Your task to perform on an android device: open app "Indeed Job Search" (install if not already installed), go to login, and select forgot password Image 0: 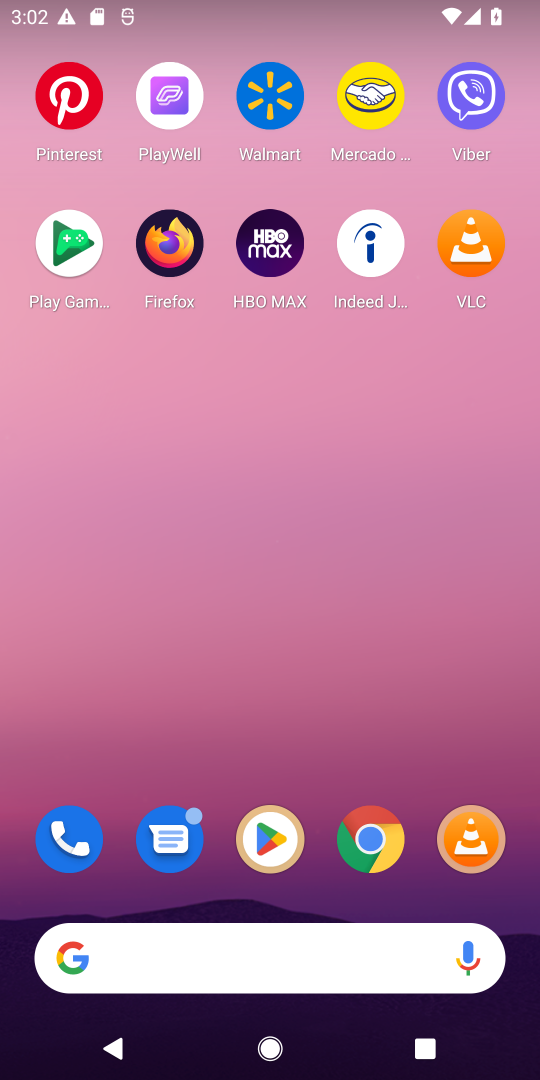
Step 0: click (285, 835)
Your task to perform on an android device: open app "Indeed Job Search" (install if not already installed), go to login, and select forgot password Image 1: 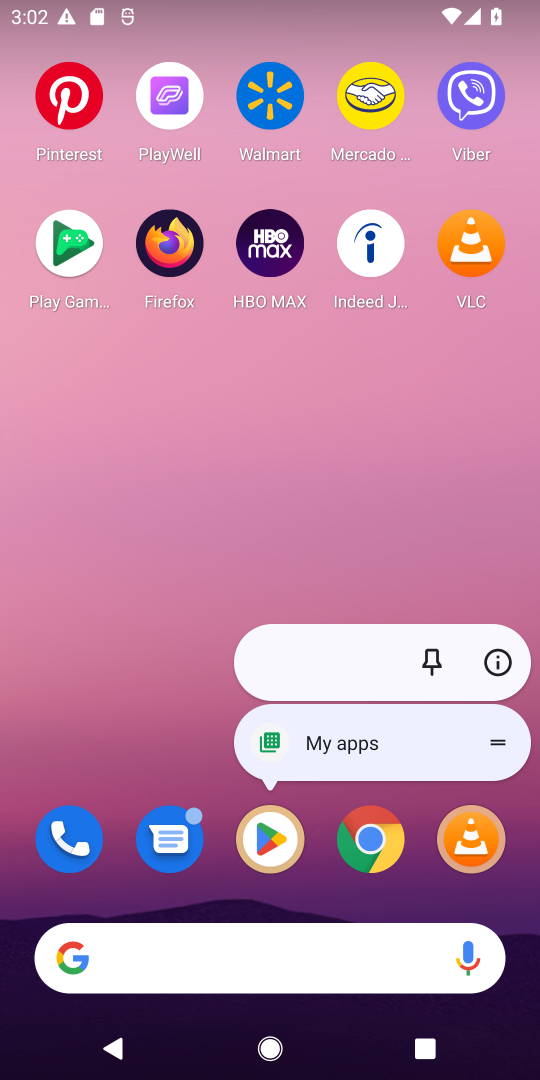
Step 1: click (281, 840)
Your task to perform on an android device: open app "Indeed Job Search" (install if not already installed), go to login, and select forgot password Image 2: 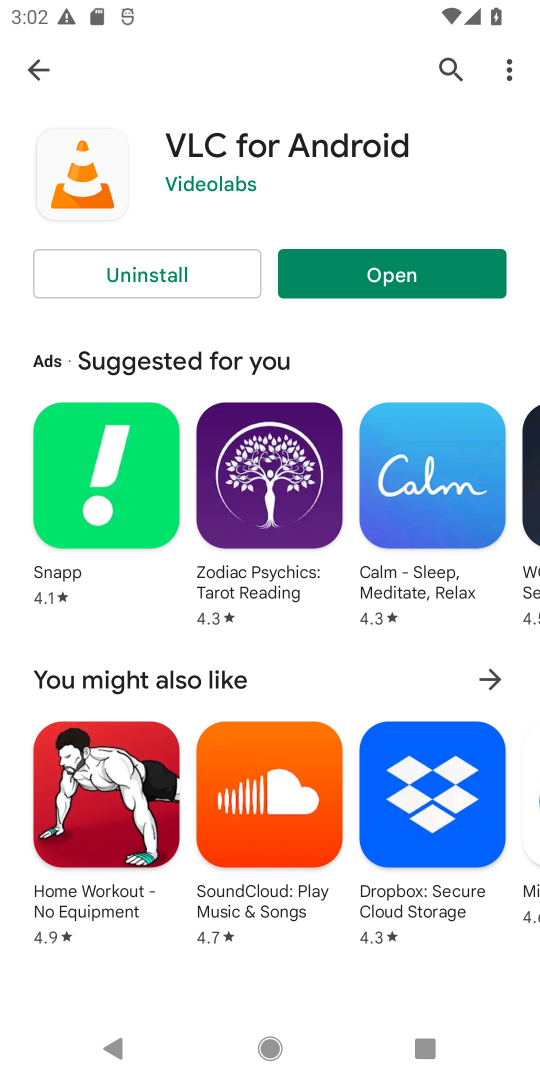
Step 2: click (37, 73)
Your task to perform on an android device: open app "Indeed Job Search" (install if not already installed), go to login, and select forgot password Image 3: 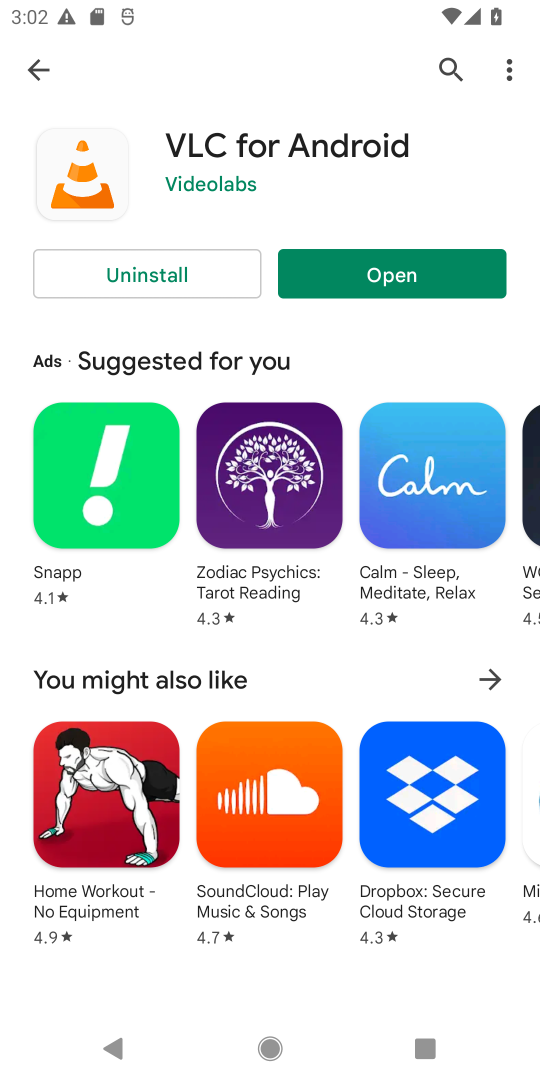
Step 3: click (36, 71)
Your task to perform on an android device: open app "Indeed Job Search" (install if not already installed), go to login, and select forgot password Image 4: 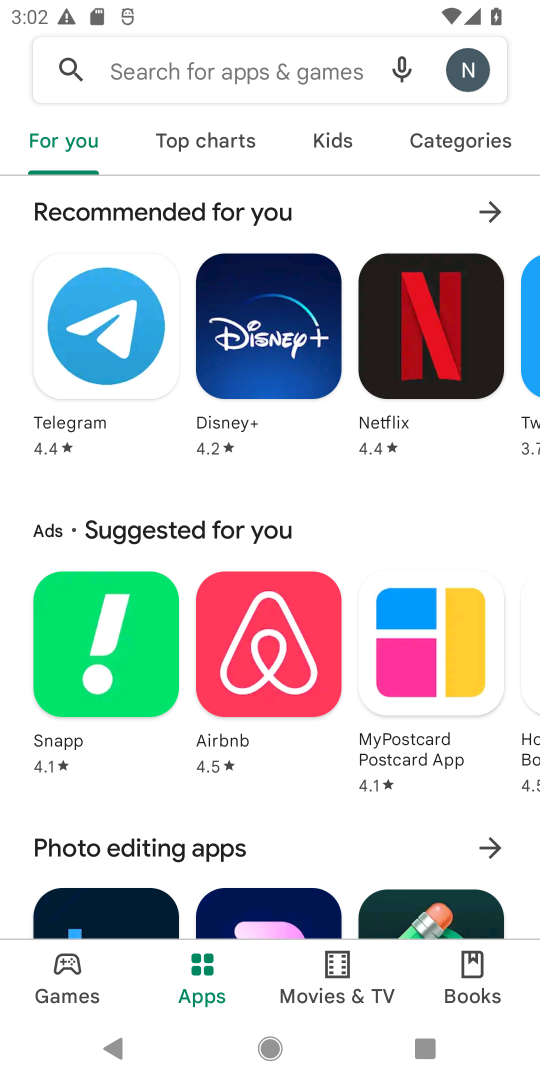
Step 4: click (216, 76)
Your task to perform on an android device: open app "Indeed Job Search" (install if not already installed), go to login, and select forgot password Image 5: 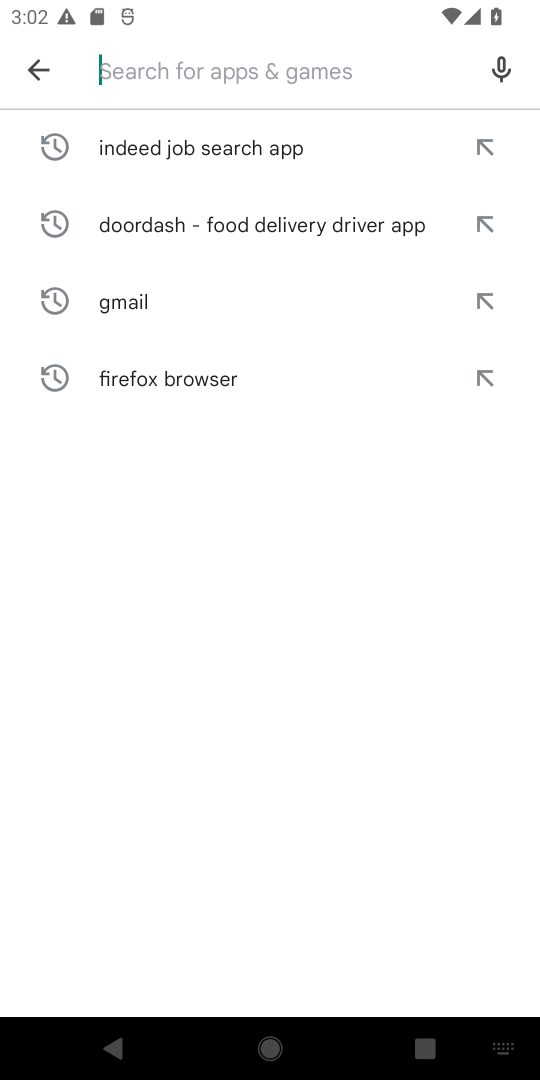
Step 5: type "Indeed Job Search"
Your task to perform on an android device: open app "Indeed Job Search" (install if not already installed), go to login, and select forgot password Image 6: 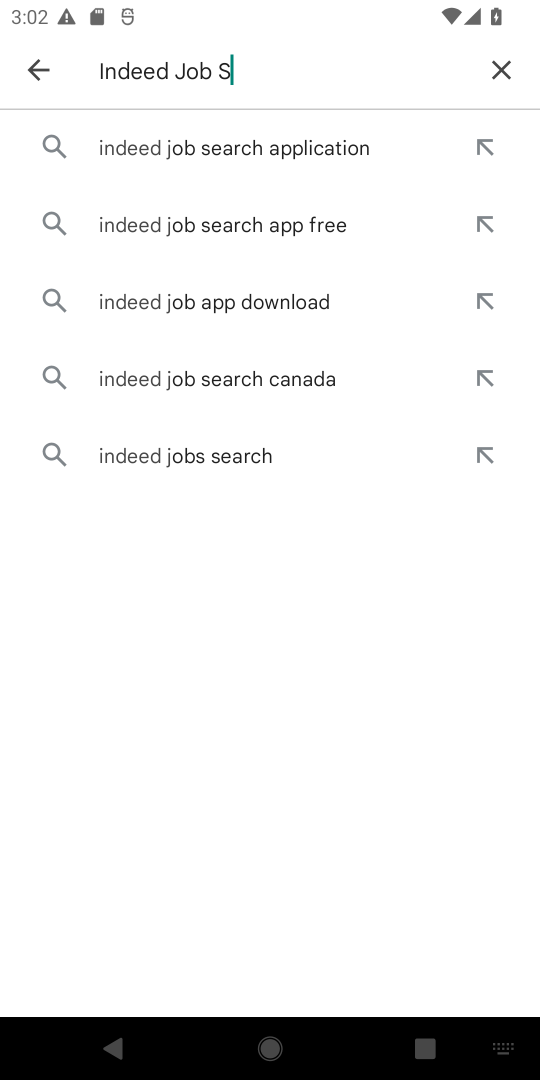
Step 6: type ""
Your task to perform on an android device: open app "Indeed Job Search" (install if not already installed), go to login, and select forgot password Image 7: 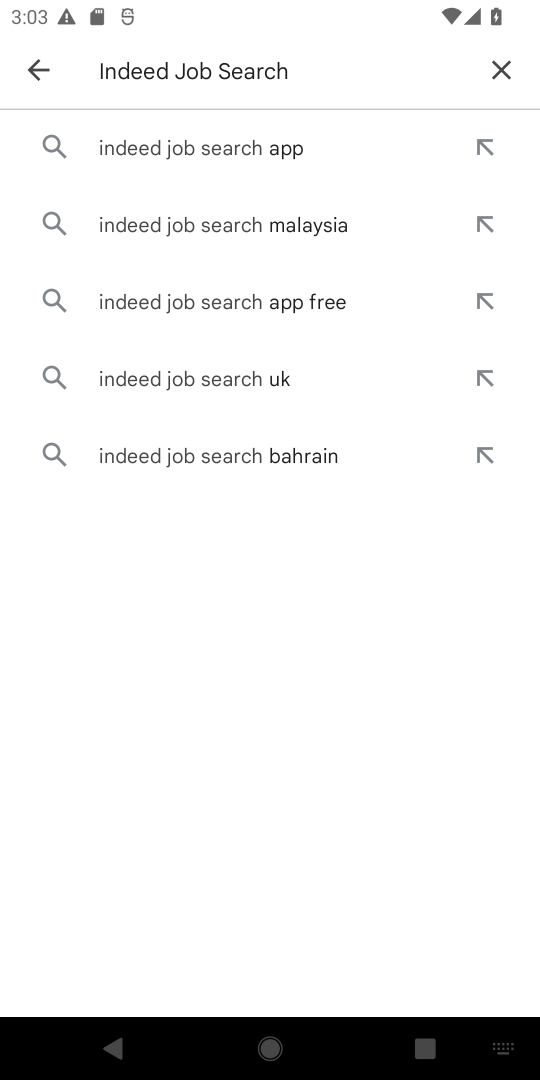
Step 7: click (297, 159)
Your task to perform on an android device: open app "Indeed Job Search" (install if not already installed), go to login, and select forgot password Image 8: 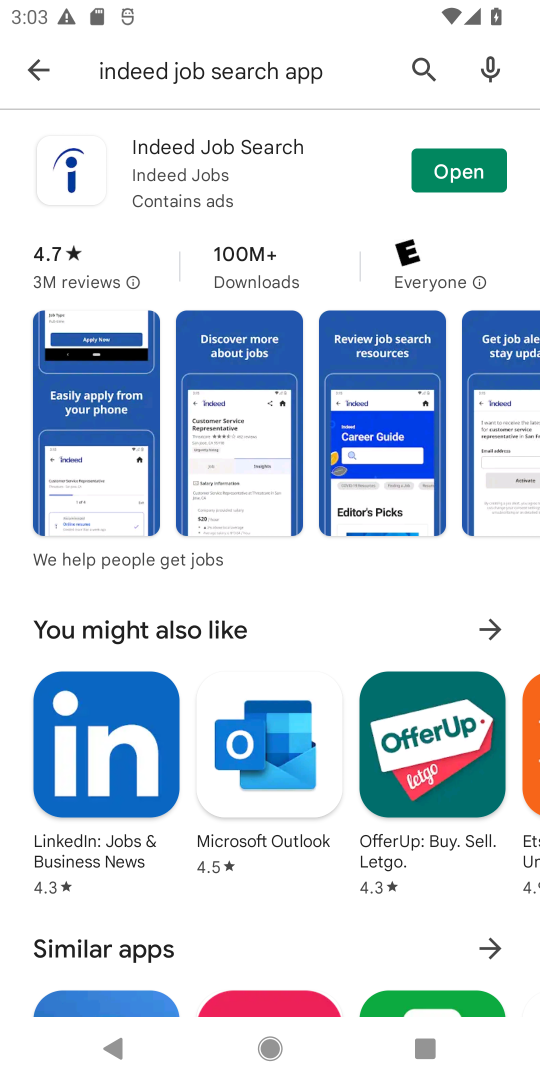
Step 8: click (428, 180)
Your task to perform on an android device: open app "Indeed Job Search" (install if not already installed), go to login, and select forgot password Image 9: 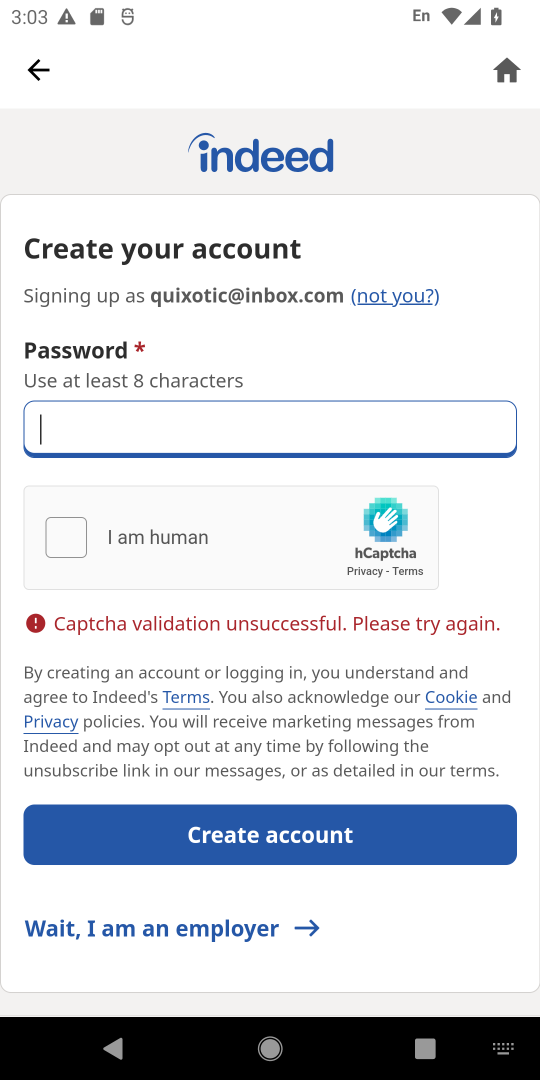
Step 9: drag from (248, 737) to (127, 115)
Your task to perform on an android device: open app "Indeed Job Search" (install if not already installed), go to login, and select forgot password Image 10: 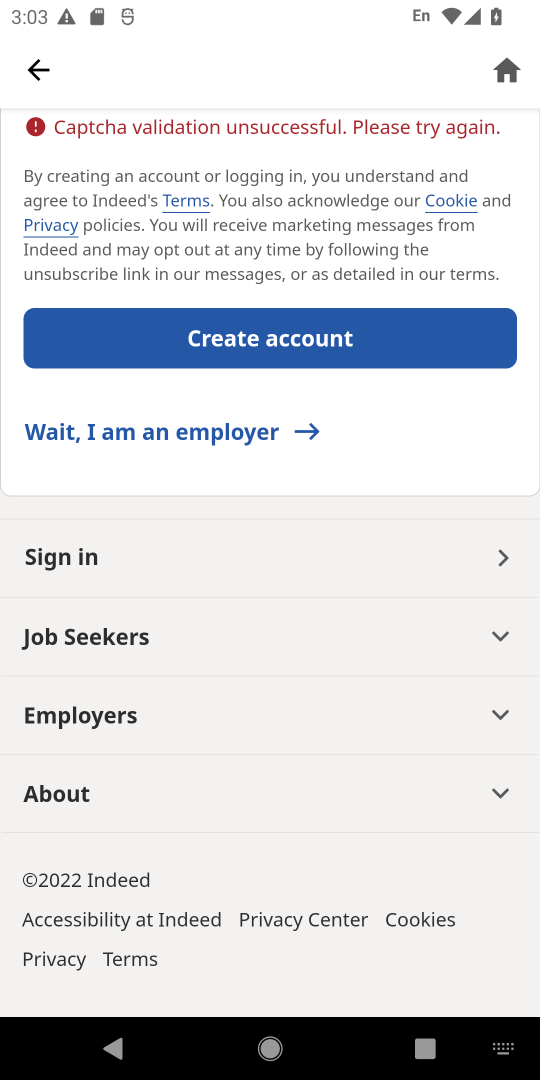
Step 10: click (121, 554)
Your task to perform on an android device: open app "Indeed Job Search" (install if not already installed), go to login, and select forgot password Image 11: 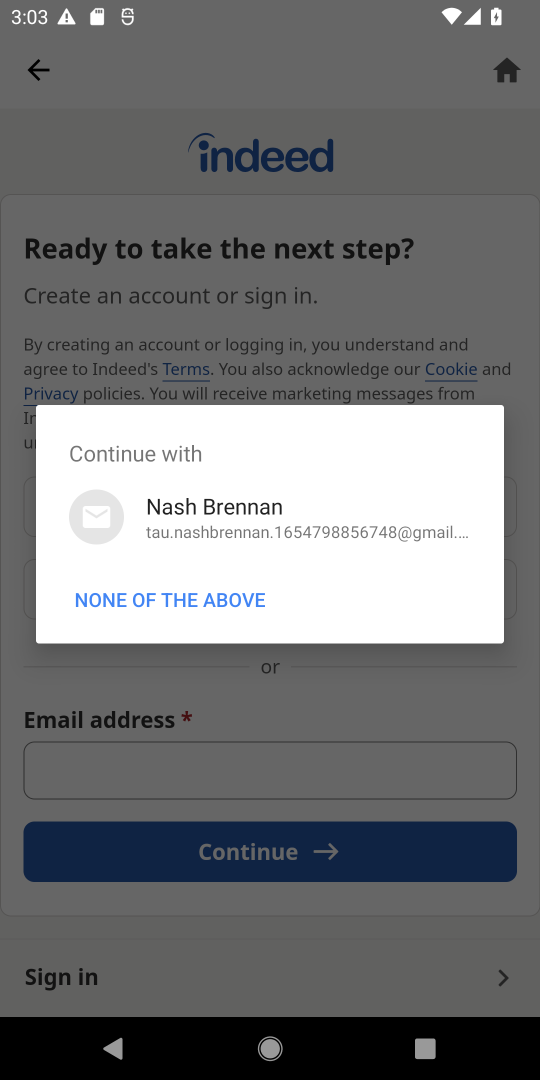
Step 11: click (217, 722)
Your task to perform on an android device: open app "Indeed Job Search" (install if not already installed), go to login, and select forgot password Image 12: 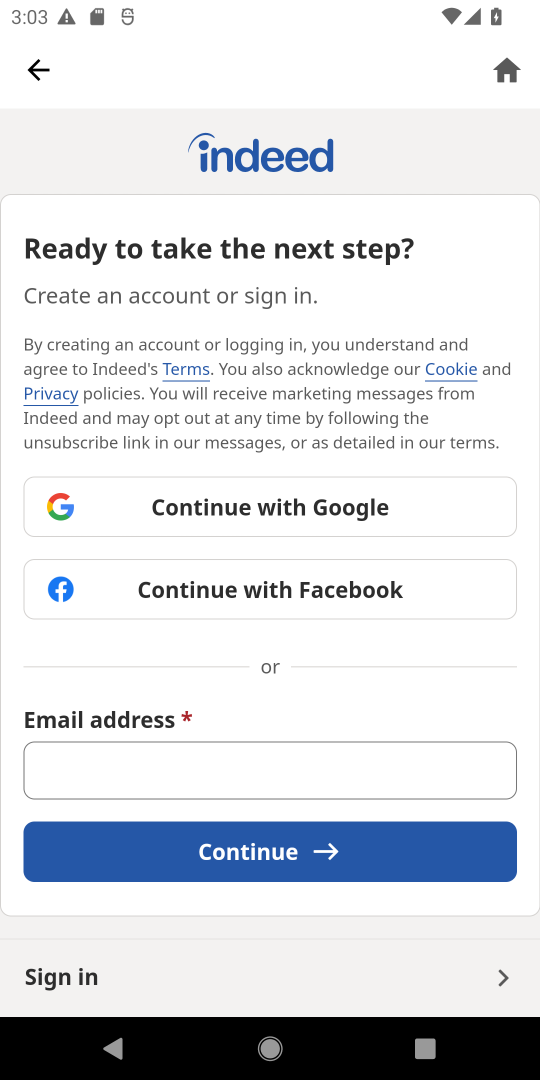
Step 12: task complete